Your task to perform on an android device: turn on the 24-hour format for clock Image 0: 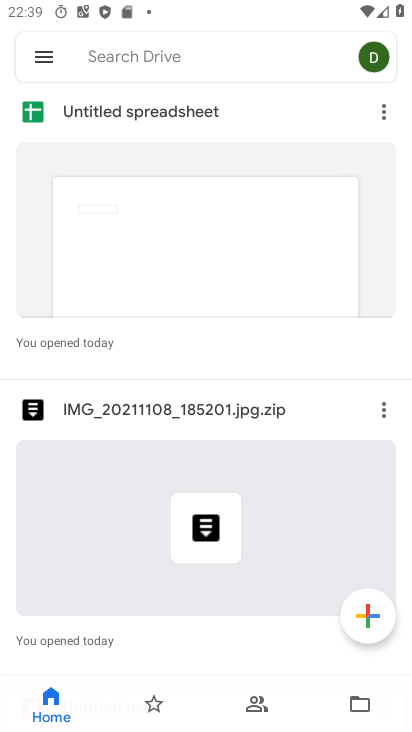
Step 0: press home button
Your task to perform on an android device: turn on the 24-hour format for clock Image 1: 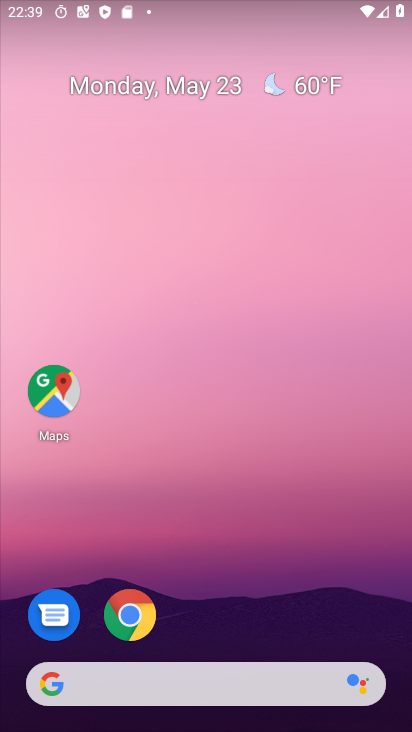
Step 1: drag from (259, 389) to (268, 93)
Your task to perform on an android device: turn on the 24-hour format for clock Image 2: 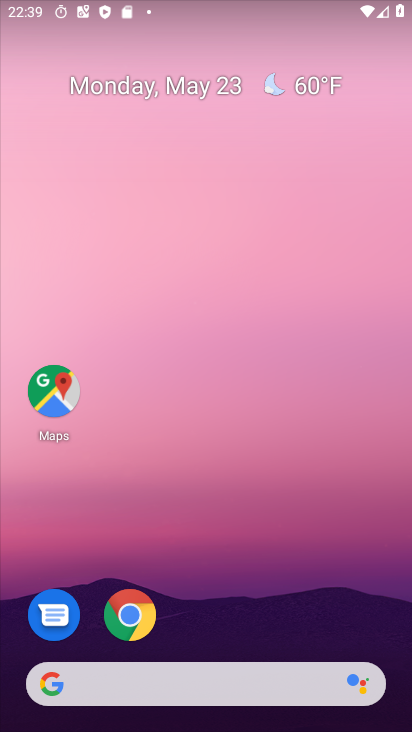
Step 2: drag from (229, 624) to (298, 8)
Your task to perform on an android device: turn on the 24-hour format for clock Image 3: 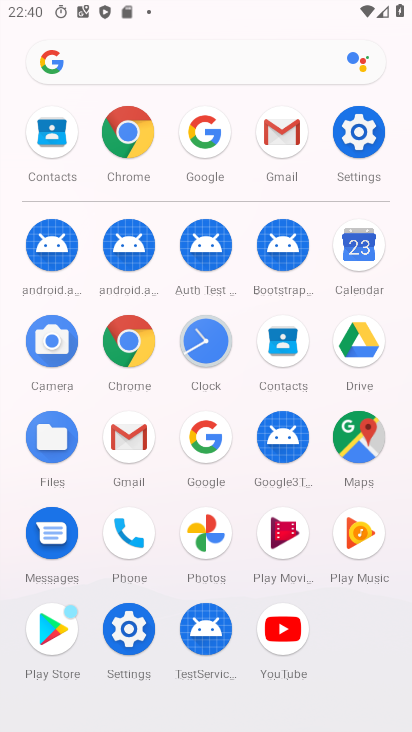
Step 3: click (205, 341)
Your task to perform on an android device: turn on the 24-hour format for clock Image 4: 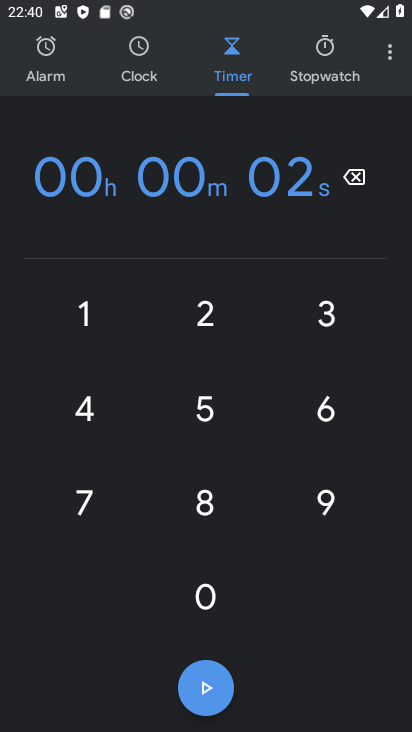
Step 4: click (384, 48)
Your task to perform on an android device: turn on the 24-hour format for clock Image 5: 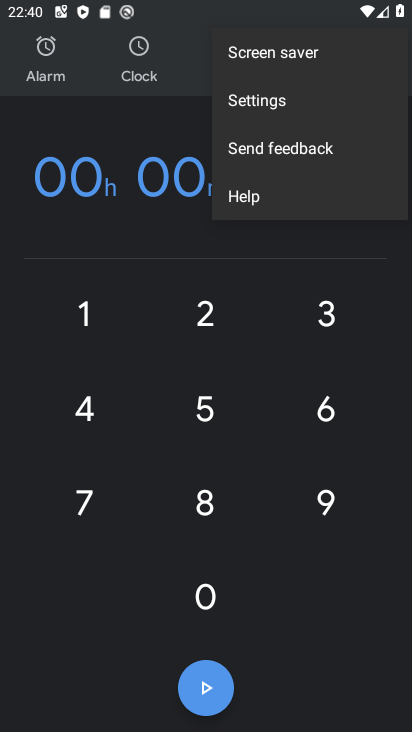
Step 5: click (293, 86)
Your task to perform on an android device: turn on the 24-hour format for clock Image 6: 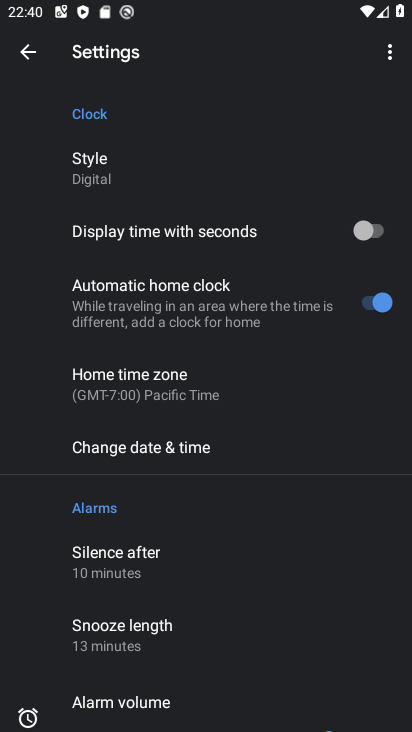
Step 6: click (160, 452)
Your task to perform on an android device: turn on the 24-hour format for clock Image 7: 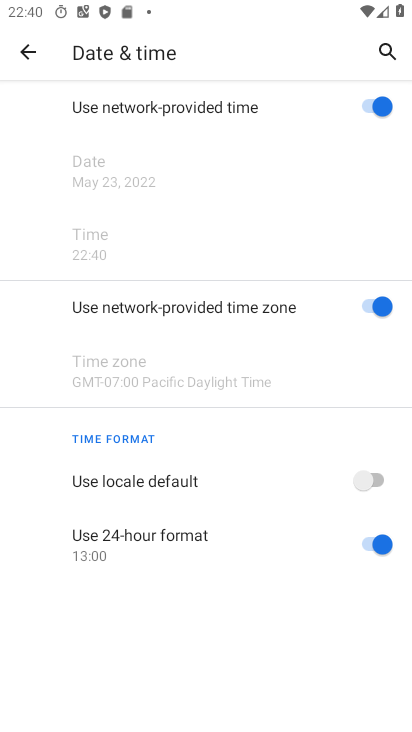
Step 7: task complete